Your task to perform on an android device: Go to CNN.com Image 0: 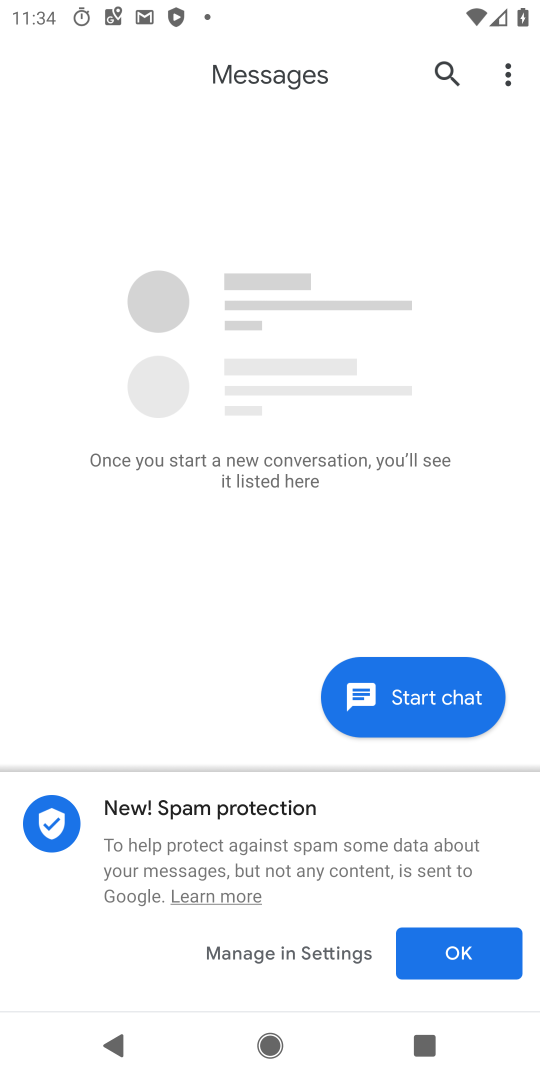
Step 0: press home button
Your task to perform on an android device: Go to CNN.com Image 1: 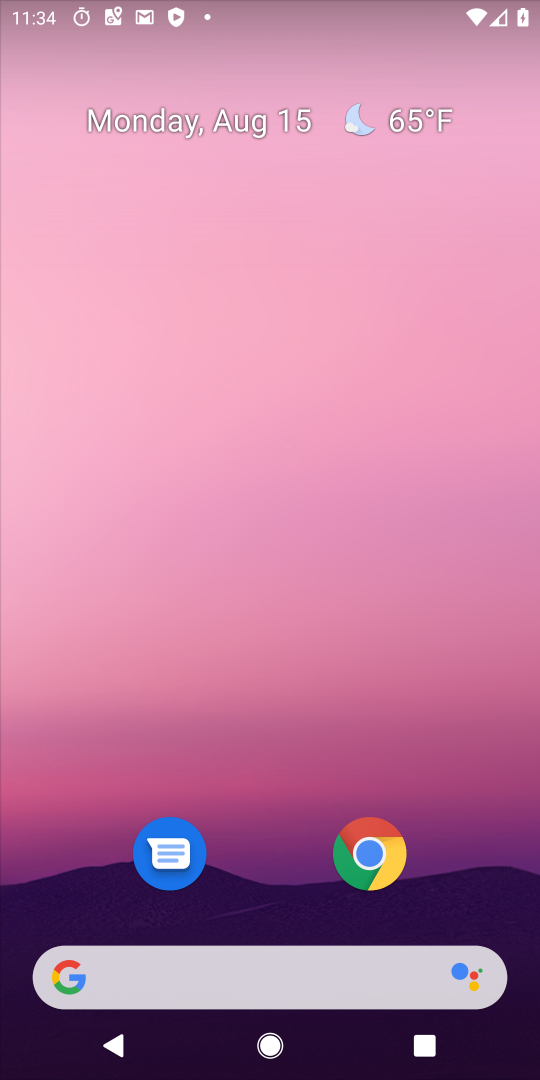
Step 1: drag from (223, 943) to (222, 67)
Your task to perform on an android device: Go to CNN.com Image 2: 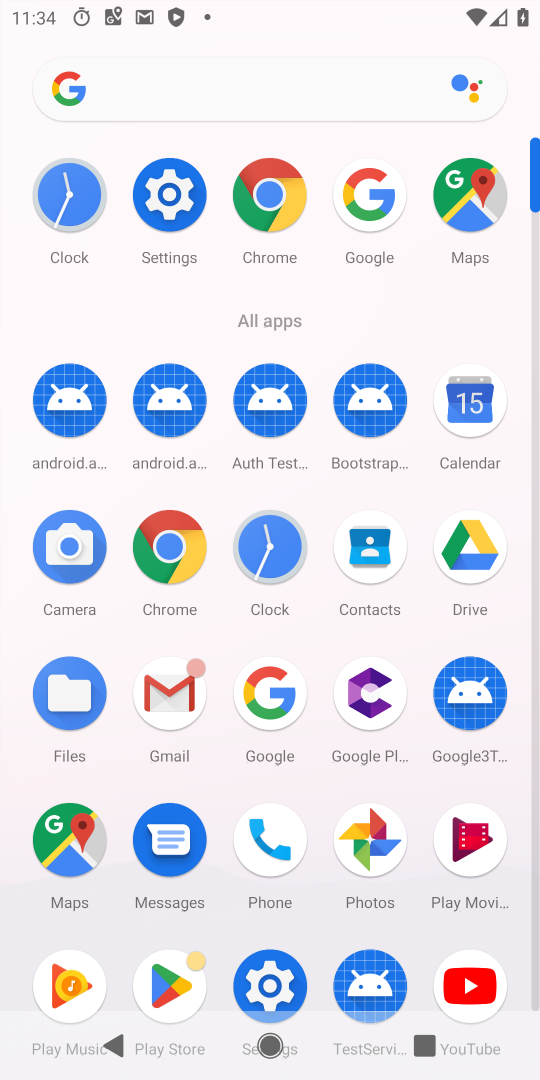
Step 2: click (257, 688)
Your task to perform on an android device: Go to CNN.com Image 3: 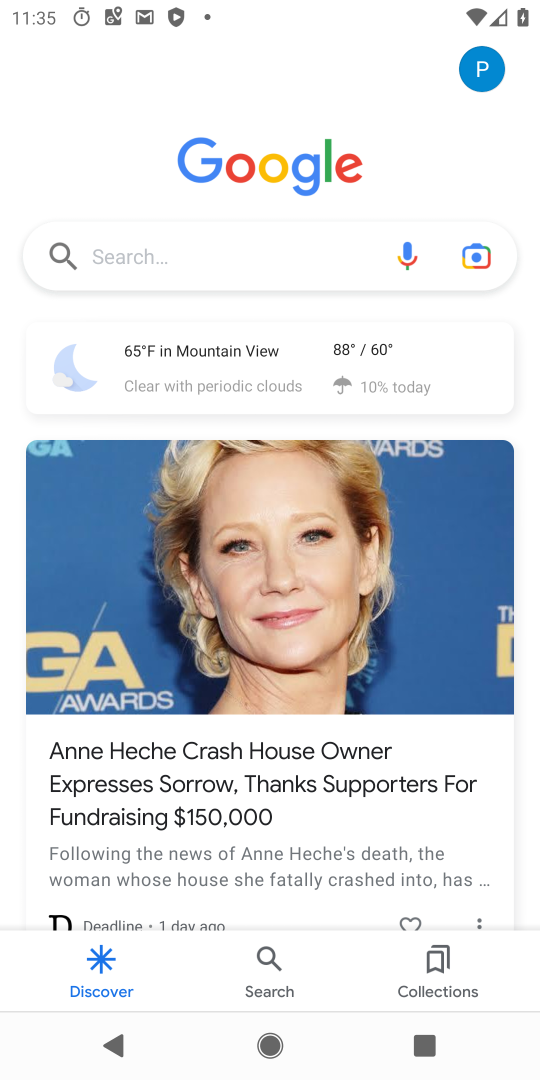
Step 3: click (149, 254)
Your task to perform on an android device: Go to CNN.com Image 4: 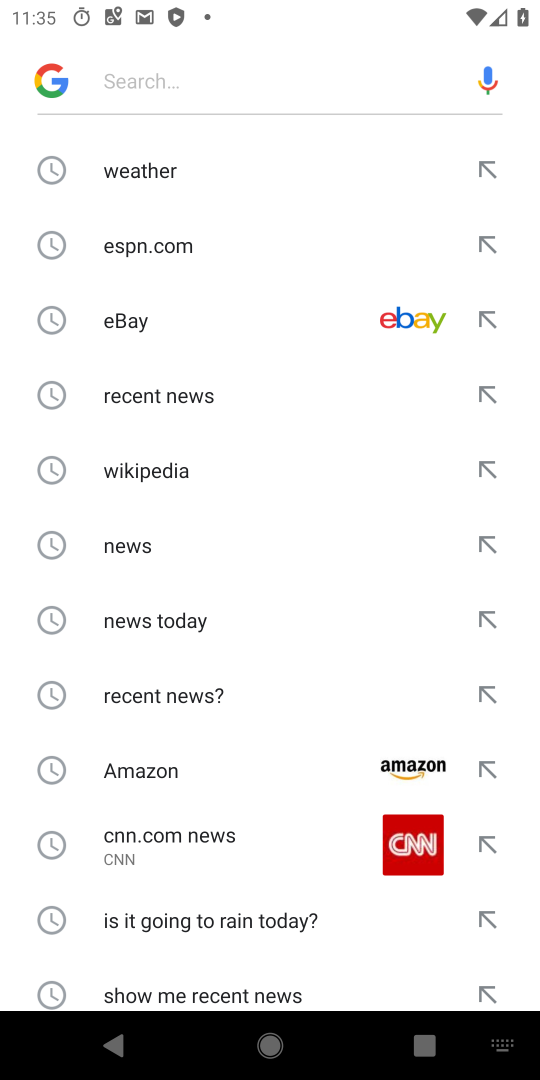
Step 4: drag from (150, 904) to (194, 235)
Your task to perform on an android device: Go to CNN.com Image 5: 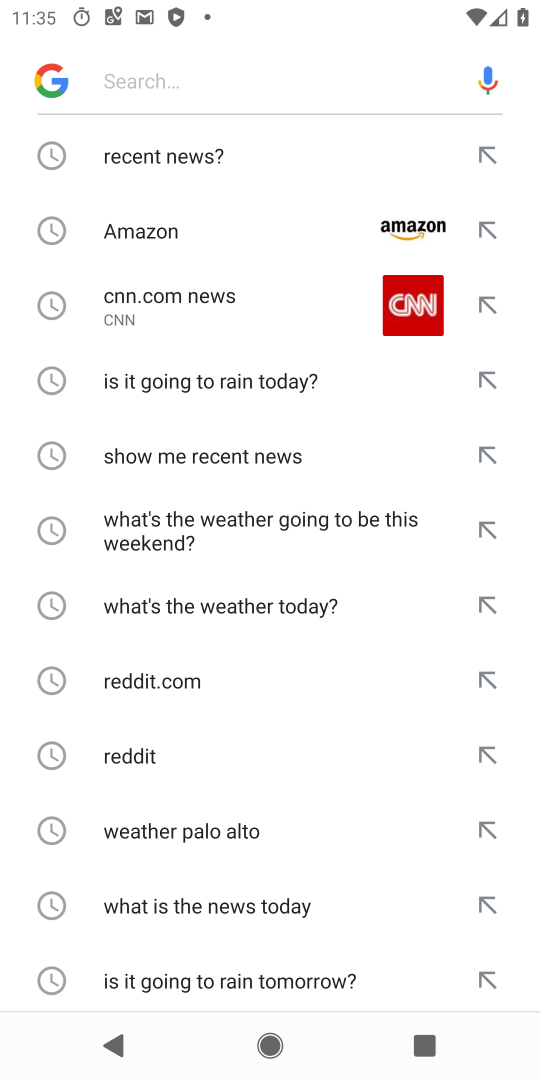
Step 5: click (194, 295)
Your task to perform on an android device: Go to CNN.com Image 6: 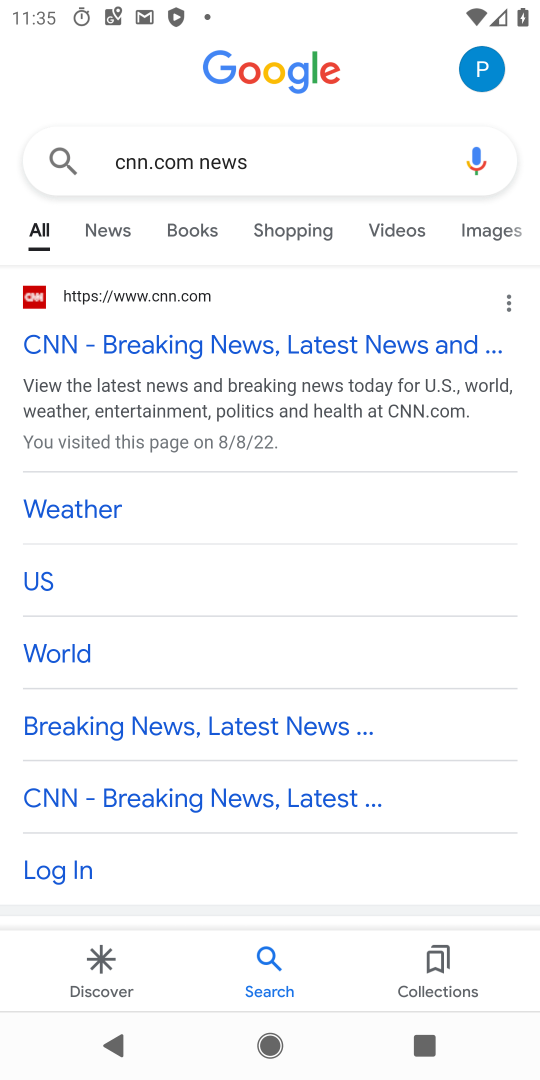
Step 6: click (181, 351)
Your task to perform on an android device: Go to CNN.com Image 7: 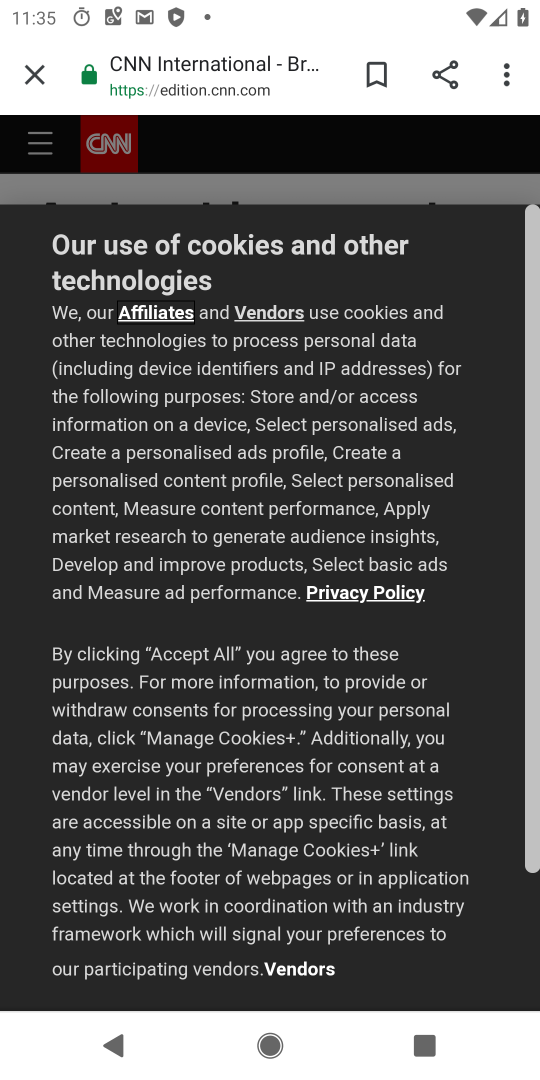
Step 7: task complete